Your task to perform on an android device: Show me the alarms in the clock app Image 0: 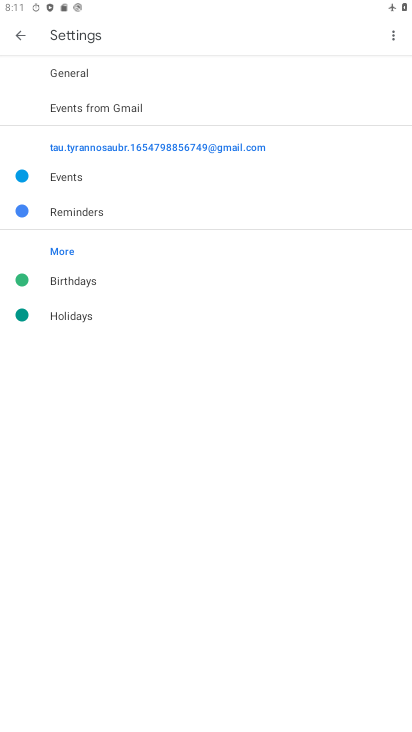
Step 0: click (23, 34)
Your task to perform on an android device: Show me the alarms in the clock app Image 1: 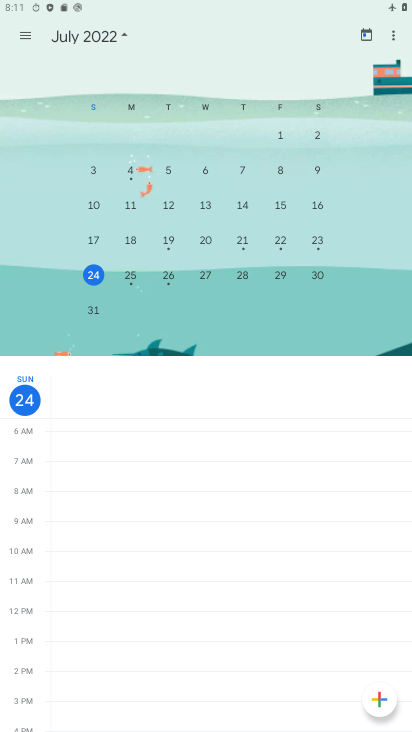
Step 1: press back button
Your task to perform on an android device: Show me the alarms in the clock app Image 2: 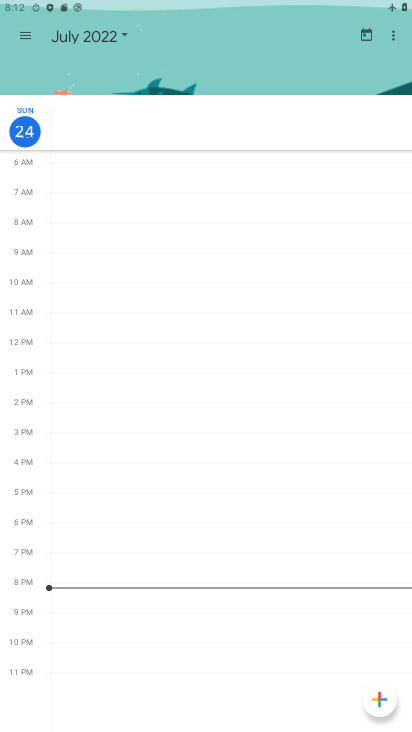
Step 2: press back button
Your task to perform on an android device: Show me the alarms in the clock app Image 3: 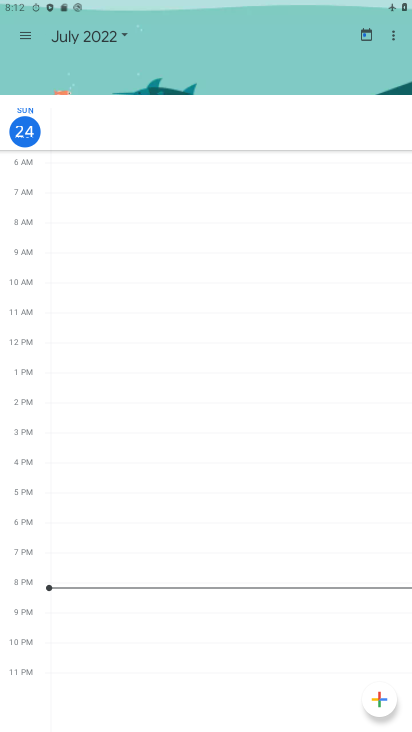
Step 3: press back button
Your task to perform on an android device: Show me the alarms in the clock app Image 4: 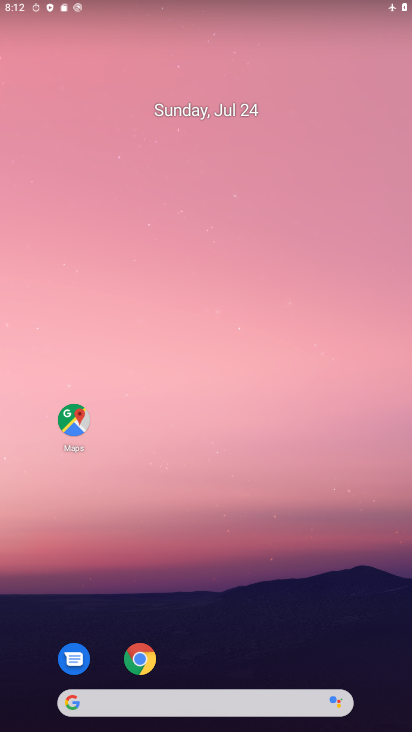
Step 4: drag from (217, 427) to (199, 185)
Your task to perform on an android device: Show me the alarms in the clock app Image 5: 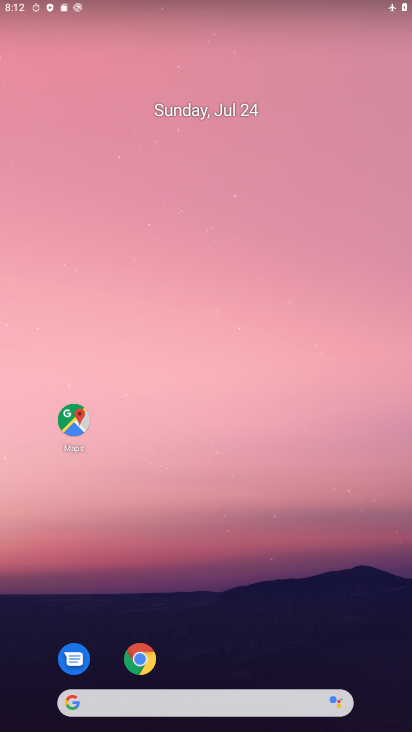
Step 5: drag from (272, 701) to (195, 217)
Your task to perform on an android device: Show me the alarms in the clock app Image 6: 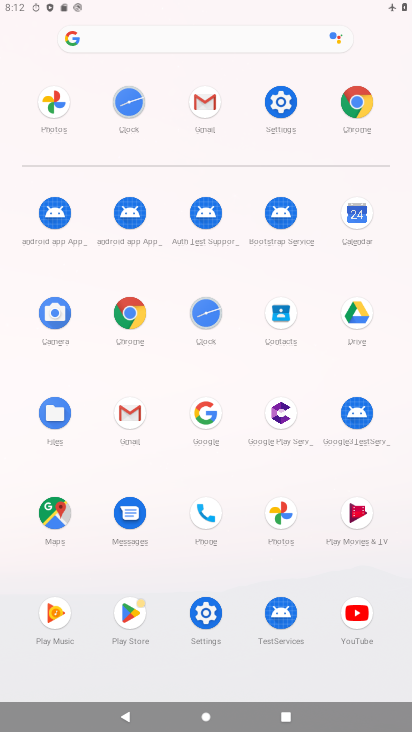
Step 6: click (196, 311)
Your task to perform on an android device: Show me the alarms in the clock app Image 7: 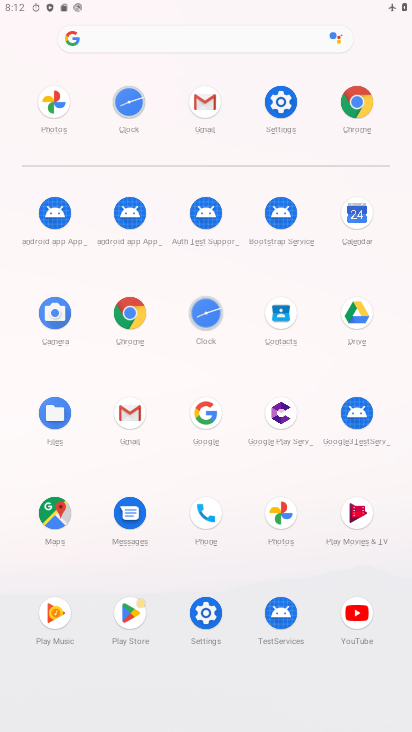
Step 7: click (211, 322)
Your task to perform on an android device: Show me the alarms in the clock app Image 8: 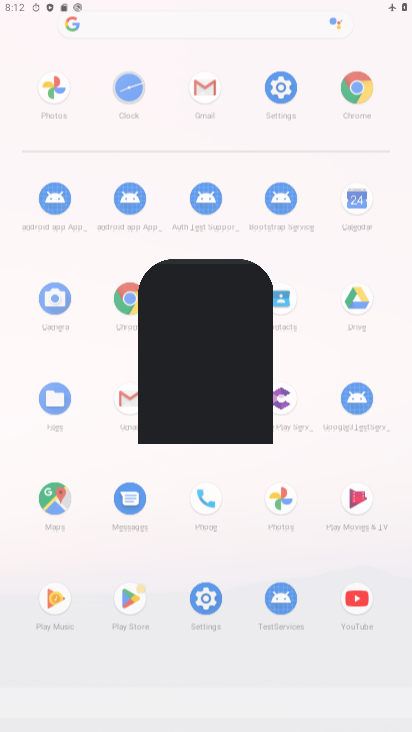
Step 8: click (202, 321)
Your task to perform on an android device: Show me the alarms in the clock app Image 9: 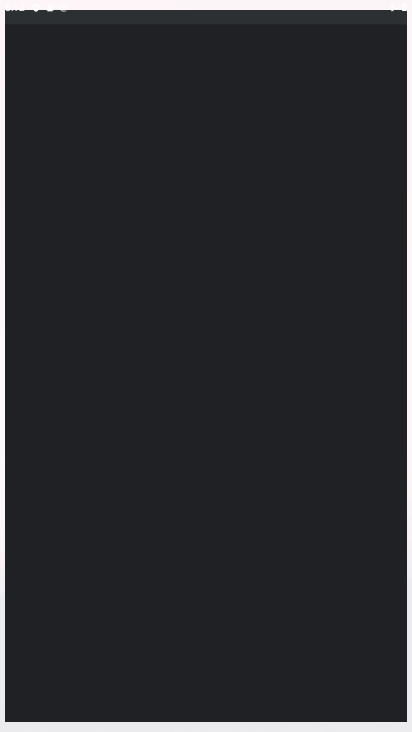
Step 9: click (201, 320)
Your task to perform on an android device: Show me the alarms in the clock app Image 10: 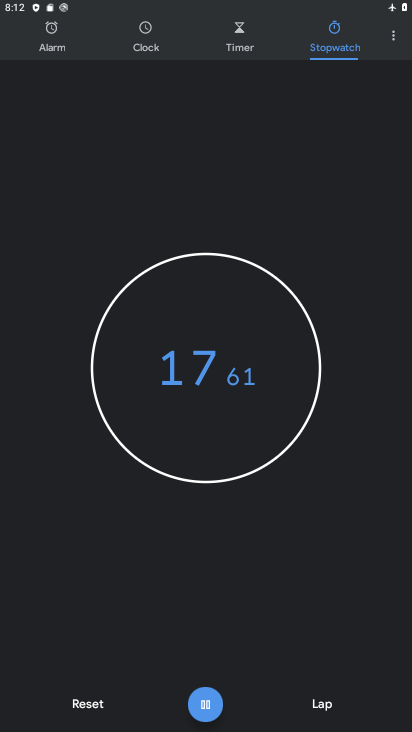
Step 10: click (213, 704)
Your task to perform on an android device: Show me the alarms in the clock app Image 11: 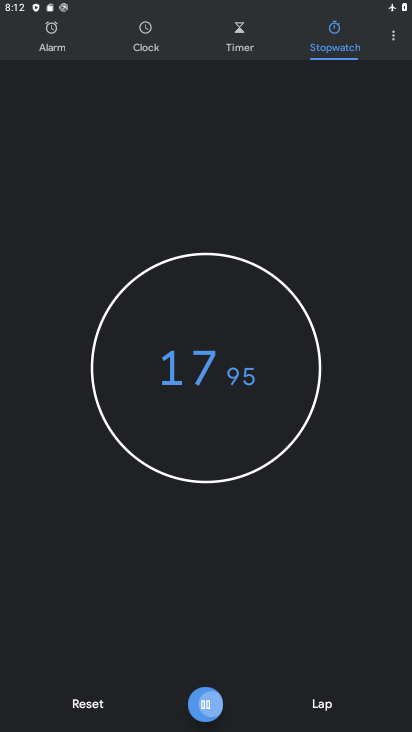
Step 11: click (206, 705)
Your task to perform on an android device: Show me the alarms in the clock app Image 12: 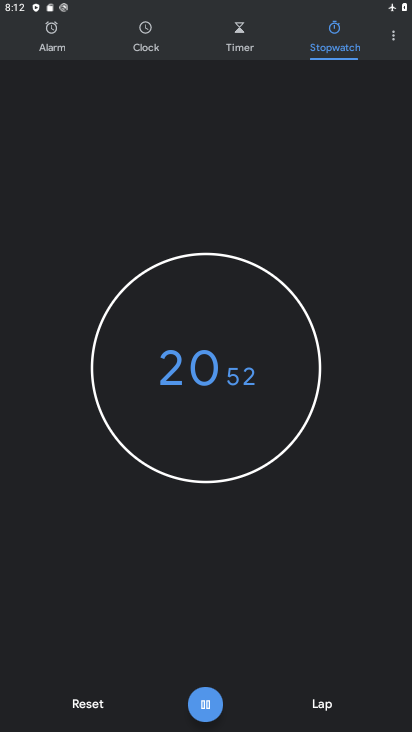
Step 12: click (206, 702)
Your task to perform on an android device: Show me the alarms in the clock app Image 13: 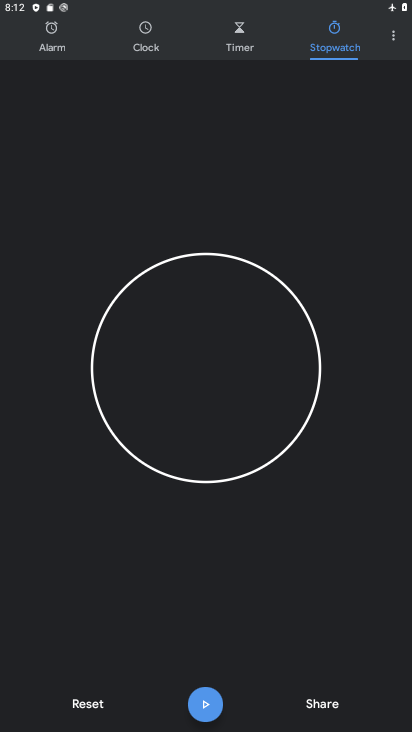
Step 13: click (50, 37)
Your task to perform on an android device: Show me the alarms in the clock app Image 14: 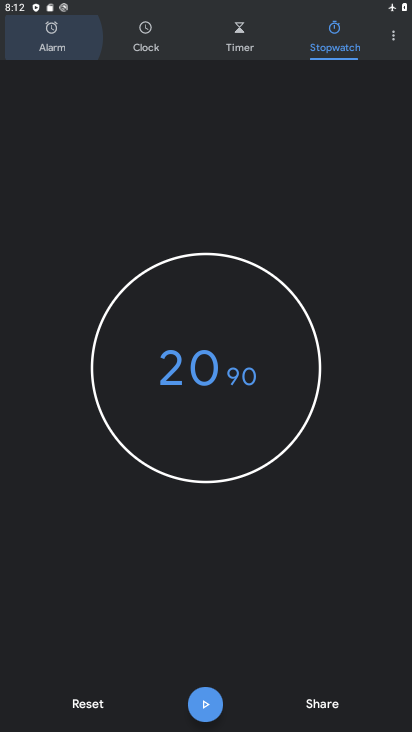
Step 14: click (50, 42)
Your task to perform on an android device: Show me the alarms in the clock app Image 15: 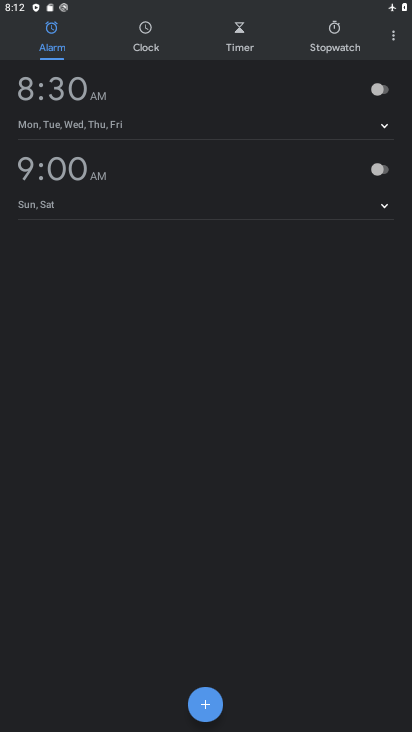
Step 15: task complete